Your task to perform on an android device: Go to calendar. Show me events next week Image 0: 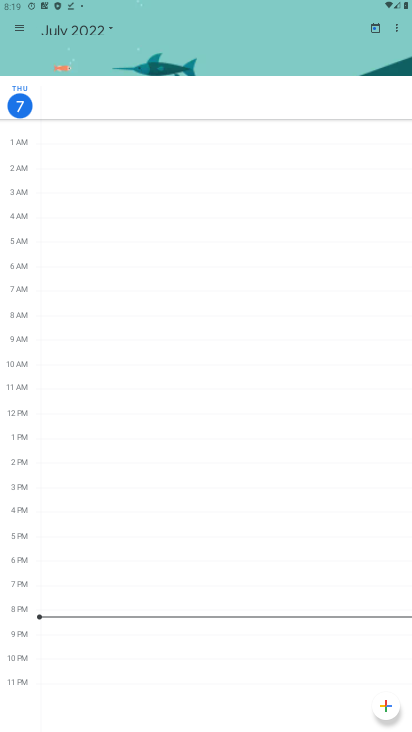
Step 0: click (17, 38)
Your task to perform on an android device: Go to calendar. Show me events next week Image 1: 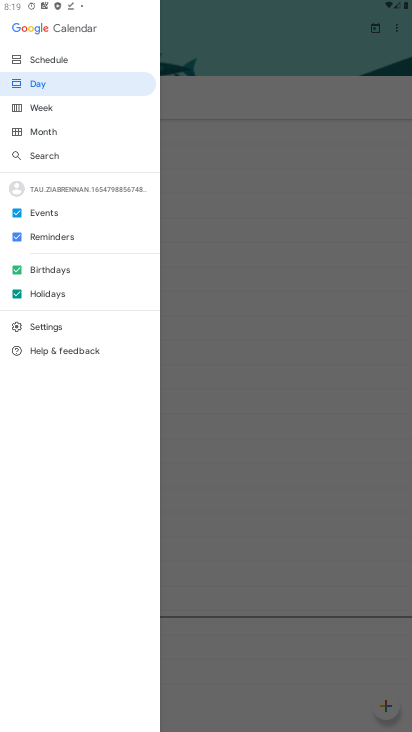
Step 1: click (31, 108)
Your task to perform on an android device: Go to calendar. Show me events next week Image 2: 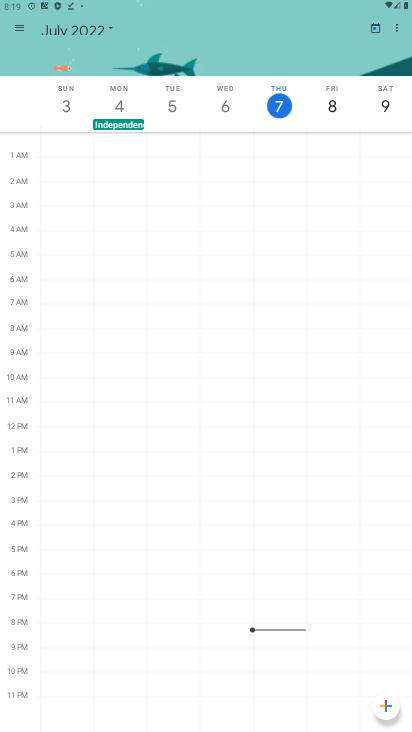
Step 2: task complete